Your task to perform on an android device: clear history in the chrome app Image 0: 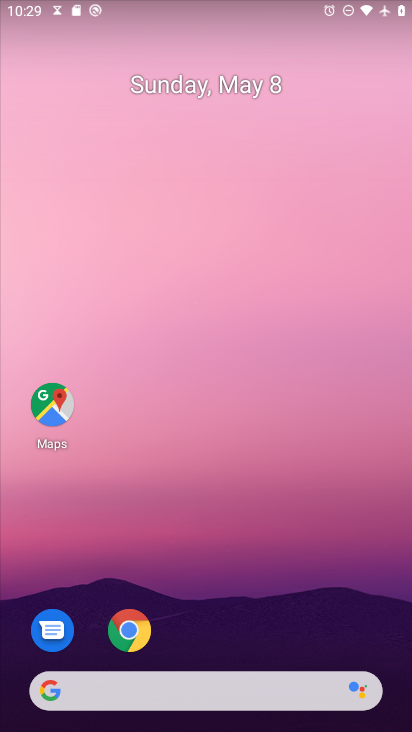
Step 0: drag from (201, 710) to (407, 250)
Your task to perform on an android device: clear history in the chrome app Image 1: 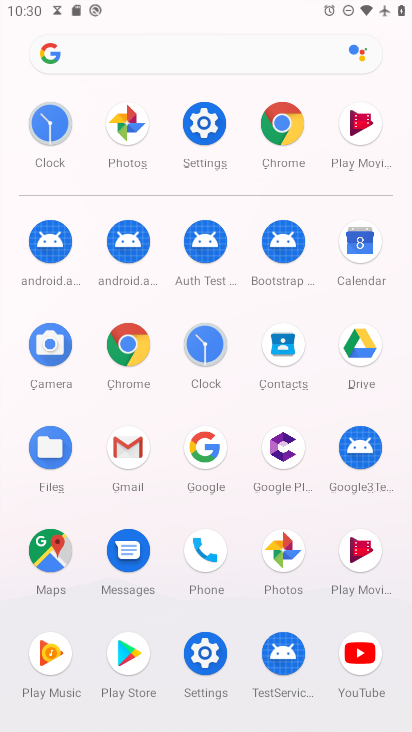
Step 1: click (290, 124)
Your task to perform on an android device: clear history in the chrome app Image 2: 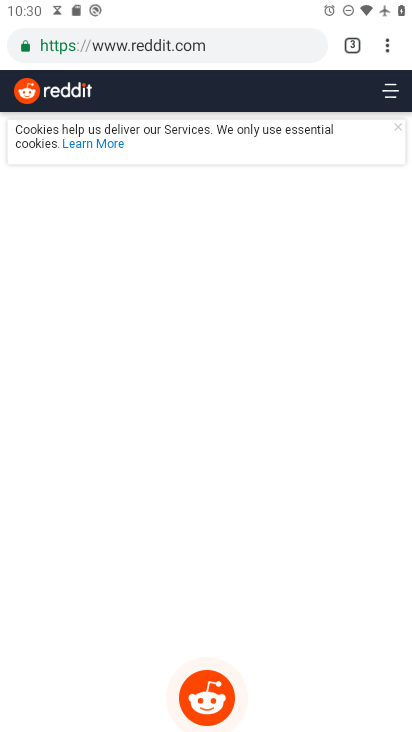
Step 2: click (396, 93)
Your task to perform on an android device: clear history in the chrome app Image 3: 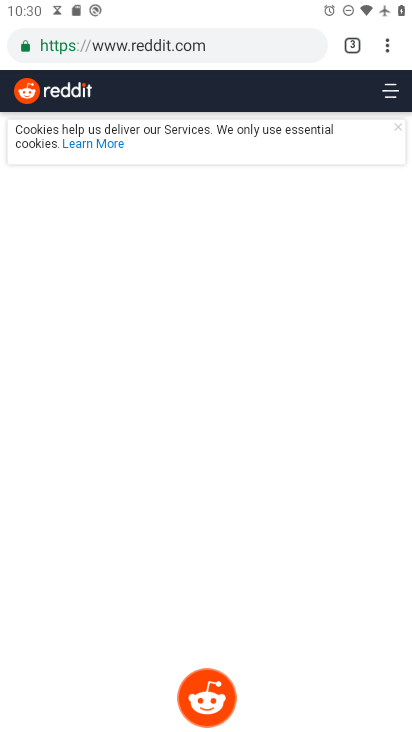
Step 3: drag from (388, 47) to (222, 258)
Your task to perform on an android device: clear history in the chrome app Image 4: 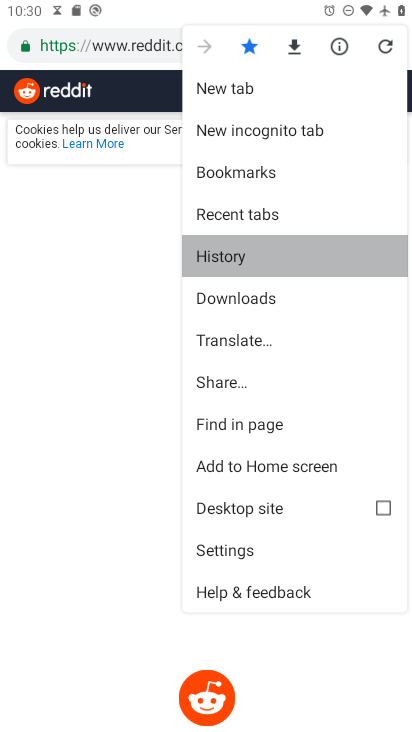
Step 4: click (222, 258)
Your task to perform on an android device: clear history in the chrome app Image 5: 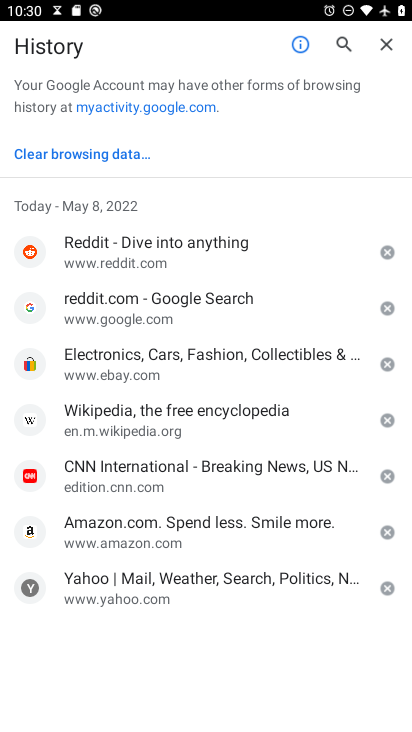
Step 5: click (64, 156)
Your task to perform on an android device: clear history in the chrome app Image 6: 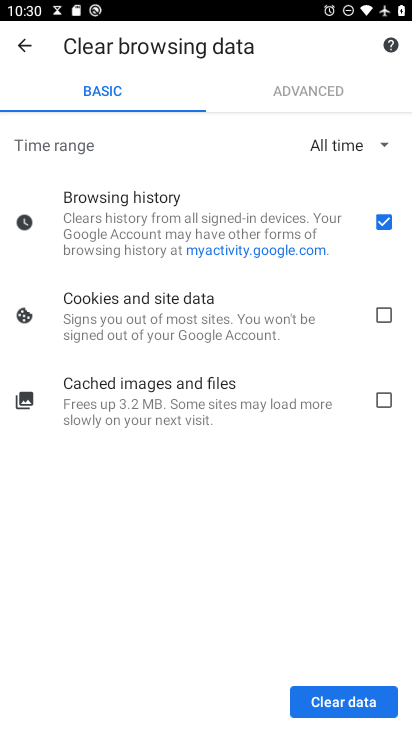
Step 6: click (388, 314)
Your task to perform on an android device: clear history in the chrome app Image 7: 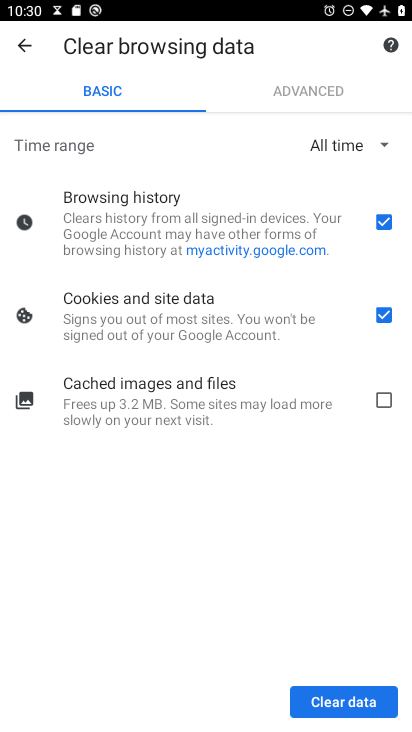
Step 7: click (390, 402)
Your task to perform on an android device: clear history in the chrome app Image 8: 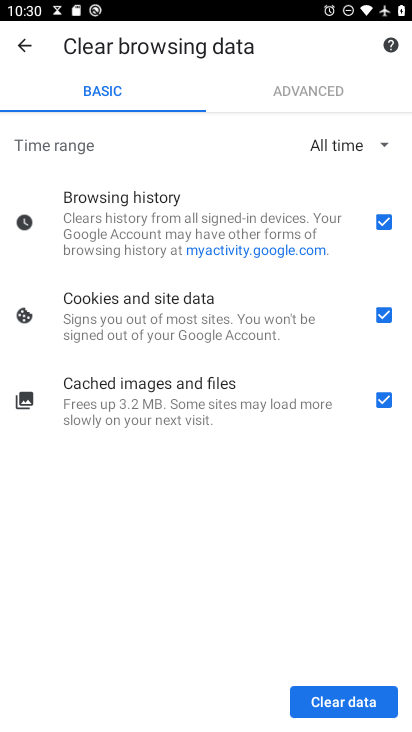
Step 8: click (336, 706)
Your task to perform on an android device: clear history in the chrome app Image 9: 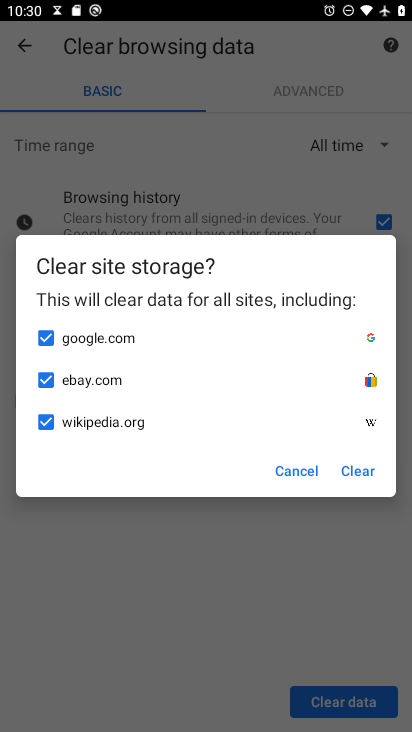
Step 9: click (368, 470)
Your task to perform on an android device: clear history in the chrome app Image 10: 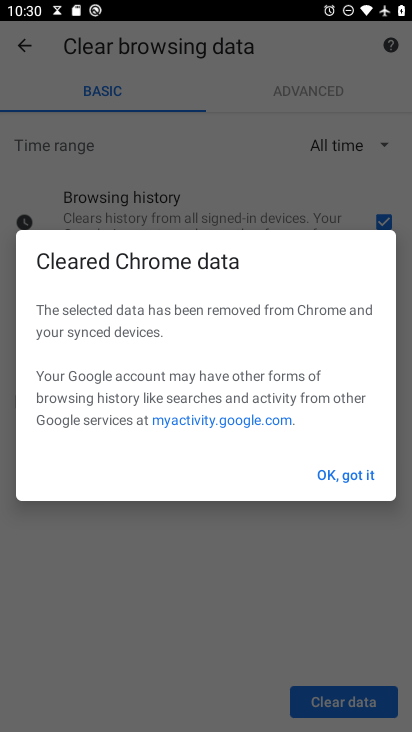
Step 10: click (351, 471)
Your task to perform on an android device: clear history in the chrome app Image 11: 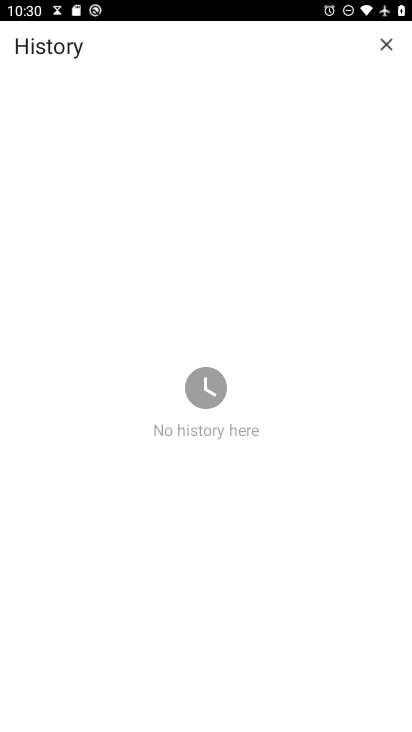
Step 11: task complete